Your task to perform on an android device: Go to location settings Image 0: 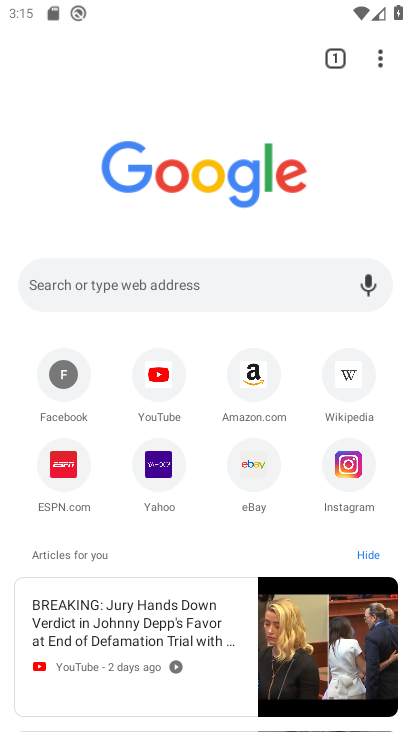
Step 0: press home button
Your task to perform on an android device: Go to location settings Image 1: 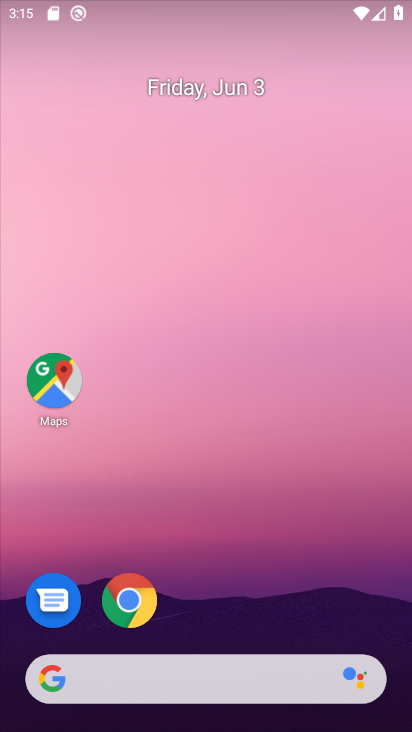
Step 1: drag from (269, 501) to (221, 79)
Your task to perform on an android device: Go to location settings Image 2: 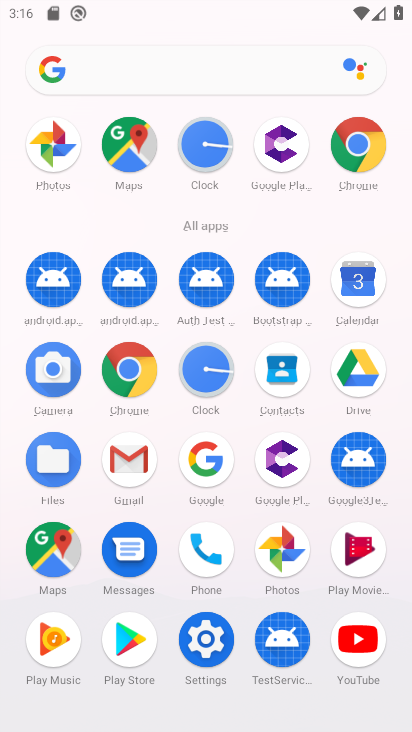
Step 2: click (194, 636)
Your task to perform on an android device: Go to location settings Image 3: 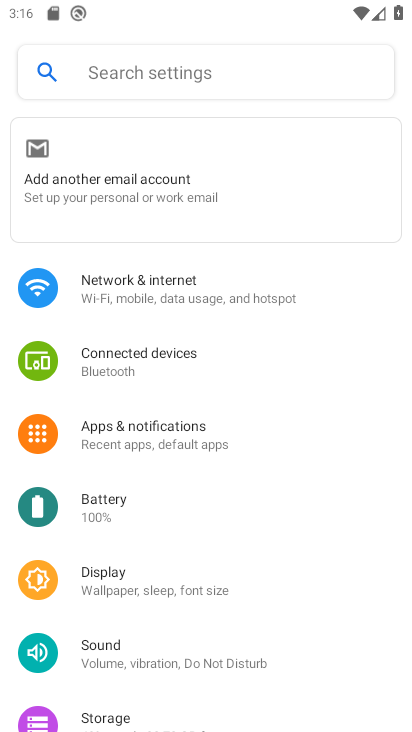
Step 3: drag from (296, 583) to (291, 182)
Your task to perform on an android device: Go to location settings Image 4: 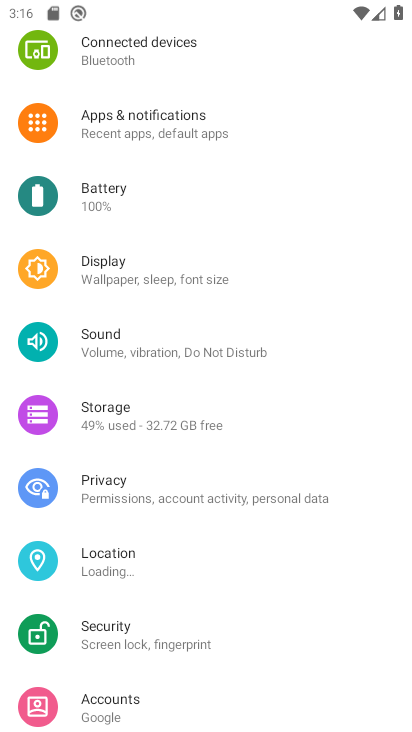
Step 4: click (105, 569)
Your task to perform on an android device: Go to location settings Image 5: 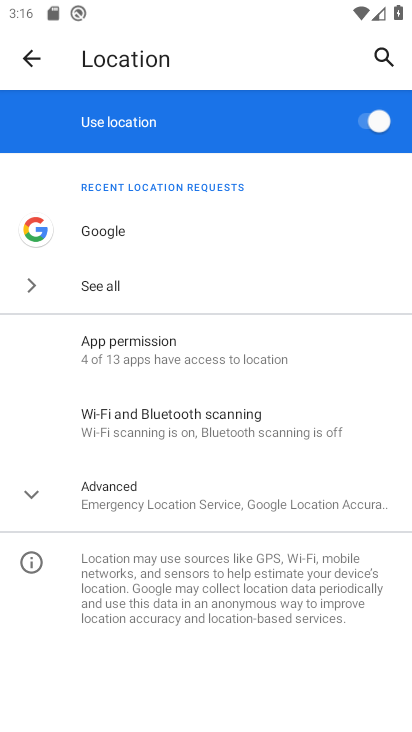
Step 5: task complete